Your task to perform on an android device: Open Google Image 0: 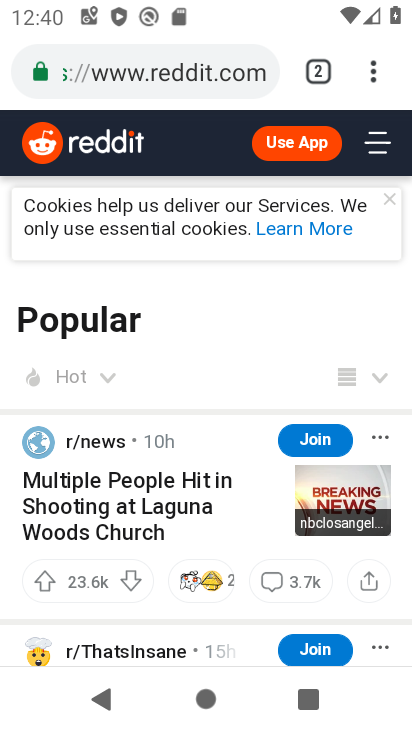
Step 0: press home button
Your task to perform on an android device: Open Google Image 1: 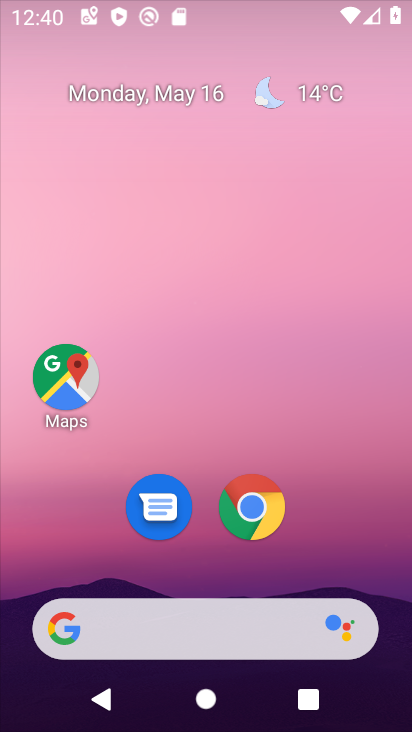
Step 1: drag from (224, 559) to (276, 179)
Your task to perform on an android device: Open Google Image 2: 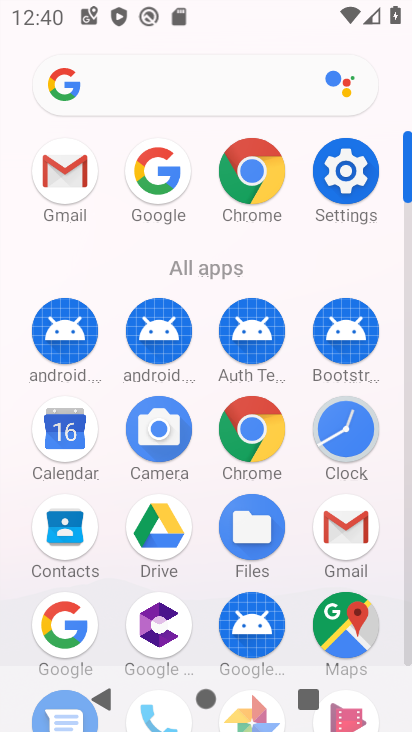
Step 2: click (66, 625)
Your task to perform on an android device: Open Google Image 3: 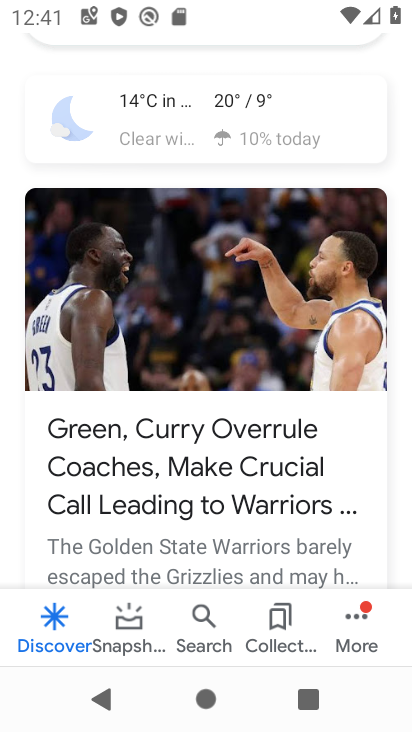
Step 3: task complete